Your task to perform on an android device: Go to Wikipedia Image 0: 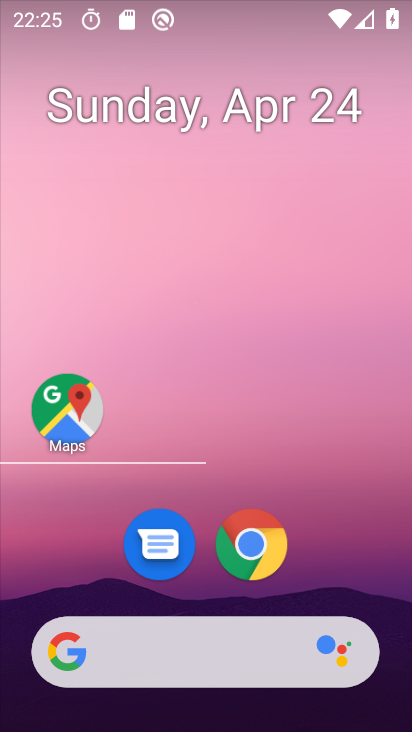
Step 0: click (353, 298)
Your task to perform on an android device: Go to Wikipedia Image 1: 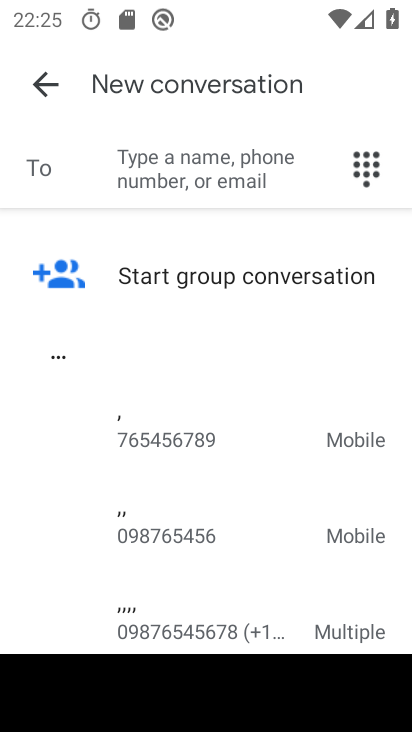
Step 1: press home button
Your task to perform on an android device: Go to Wikipedia Image 2: 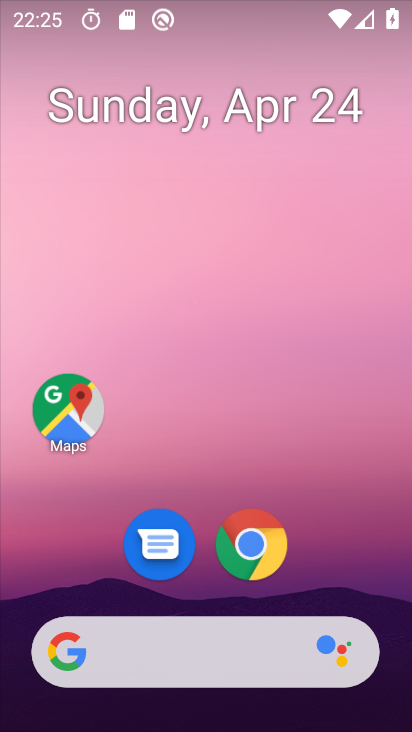
Step 2: drag from (345, 379) to (375, 192)
Your task to perform on an android device: Go to Wikipedia Image 3: 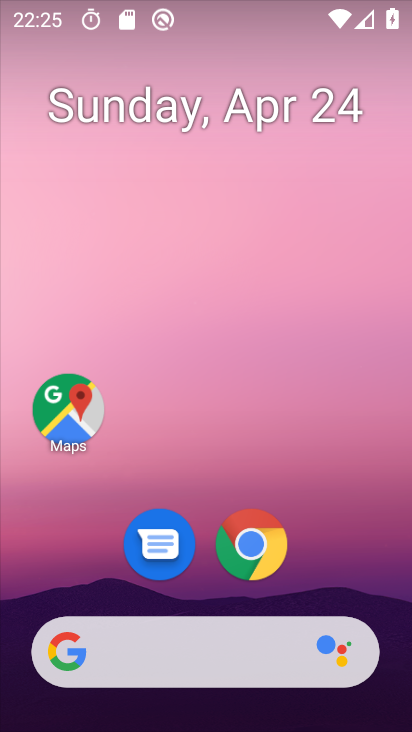
Step 3: click (253, 544)
Your task to perform on an android device: Go to Wikipedia Image 4: 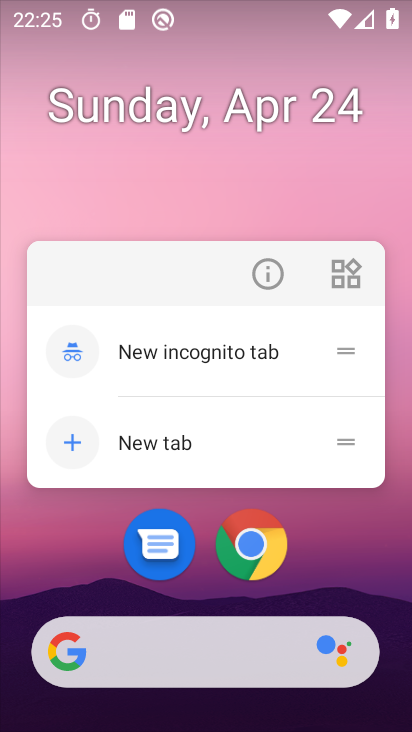
Step 4: click (250, 555)
Your task to perform on an android device: Go to Wikipedia Image 5: 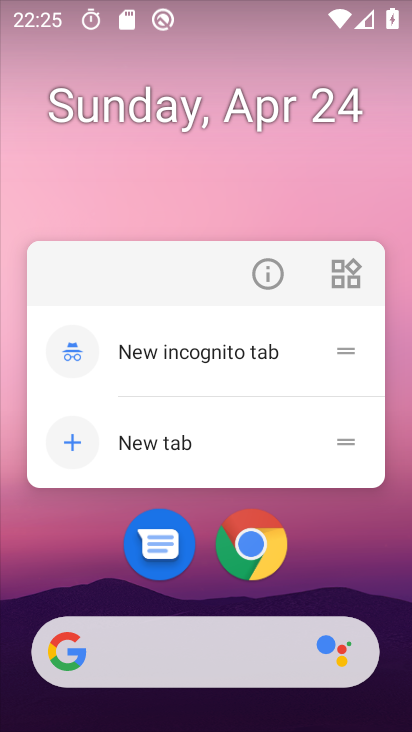
Step 5: click (250, 555)
Your task to perform on an android device: Go to Wikipedia Image 6: 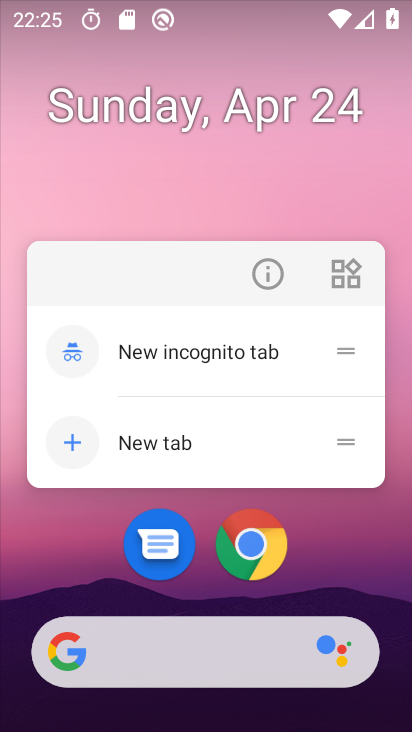
Step 6: click (251, 536)
Your task to perform on an android device: Go to Wikipedia Image 7: 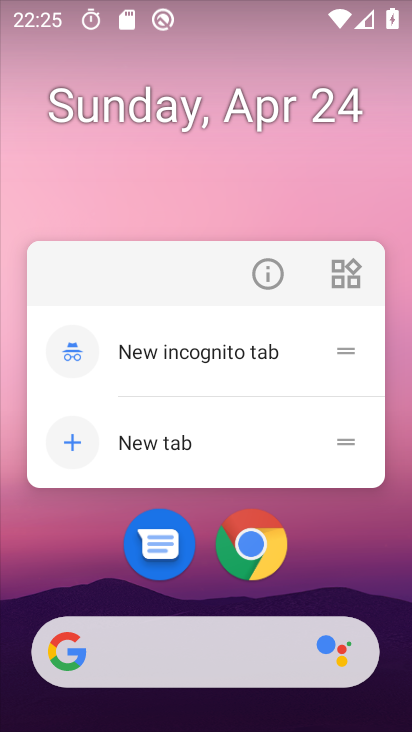
Step 7: click (329, 528)
Your task to perform on an android device: Go to Wikipedia Image 8: 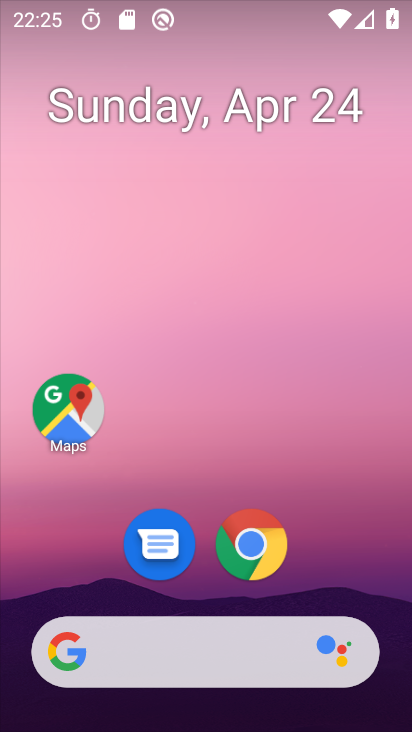
Step 8: drag from (213, 523) to (211, 235)
Your task to perform on an android device: Go to Wikipedia Image 9: 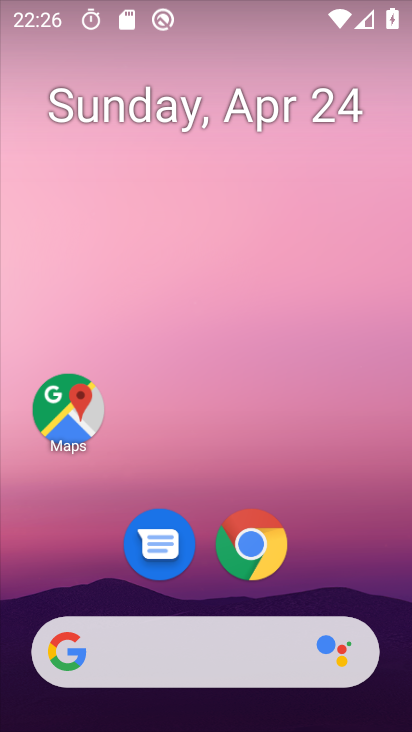
Step 9: drag from (213, 577) to (246, 175)
Your task to perform on an android device: Go to Wikipedia Image 10: 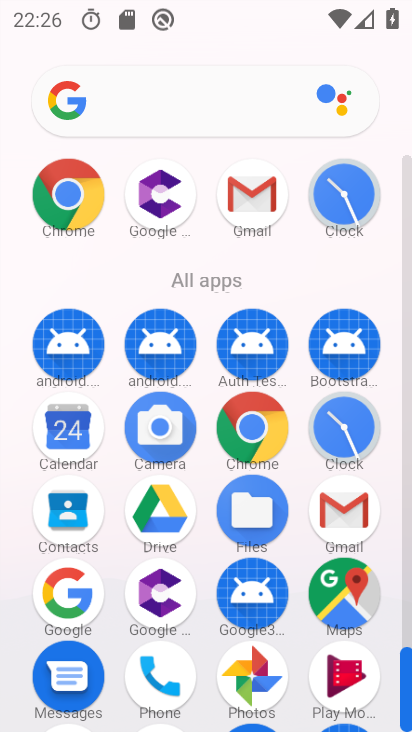
Step 10: click (264, 429)
Your task to perform on an android device: Go to Wikipedia Image 11: 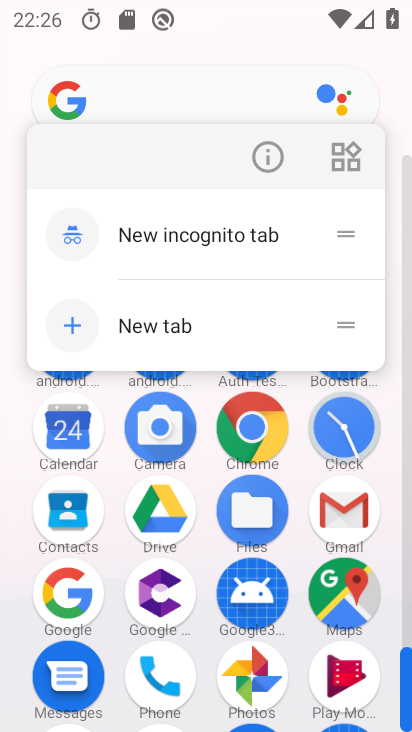
Step 11: click (248, 417)
Your task to perform on an android device: Go to Wikipedia Image 12: 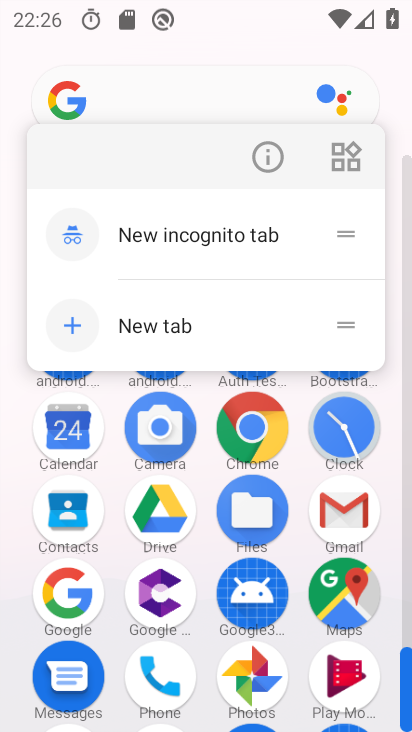
Step 12: click (248, 417)
Your task to perform on an android device: Go to Wikipedia Image 13: 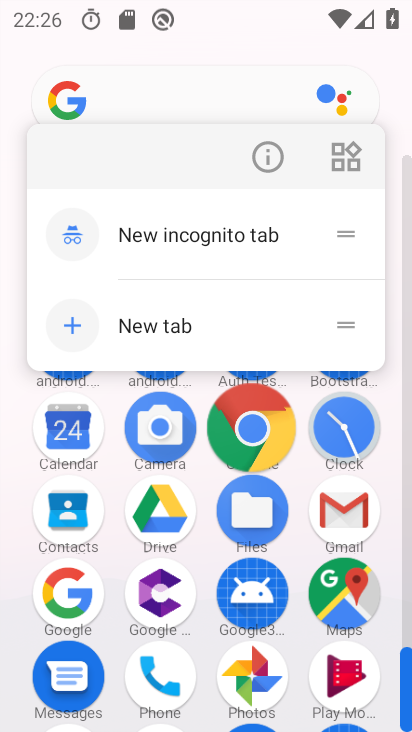
Step 13: click (253, 418)
Your task to perform on an android device: Go to Wikipedia Image 14: 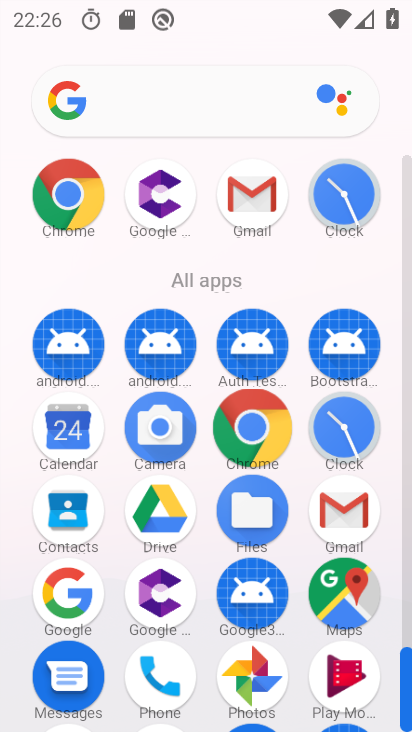
Step 14: click (253, 418)
Your task to perform on an android device: Go to Wikipedia Image 15: 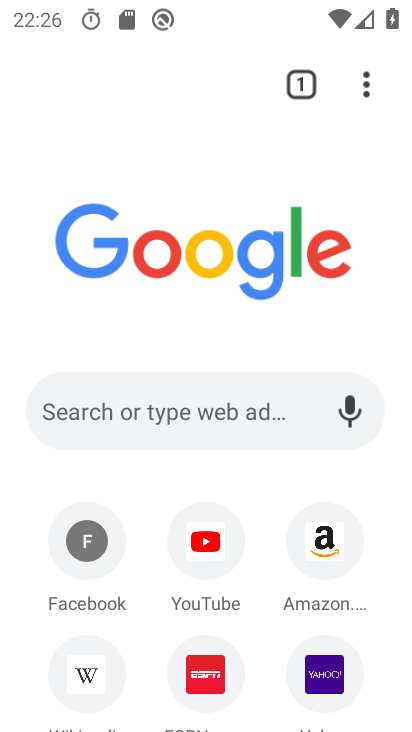
Step 15: click (263, 437)
Your task to perform on an android device: Go to Wikipedia Image 16: 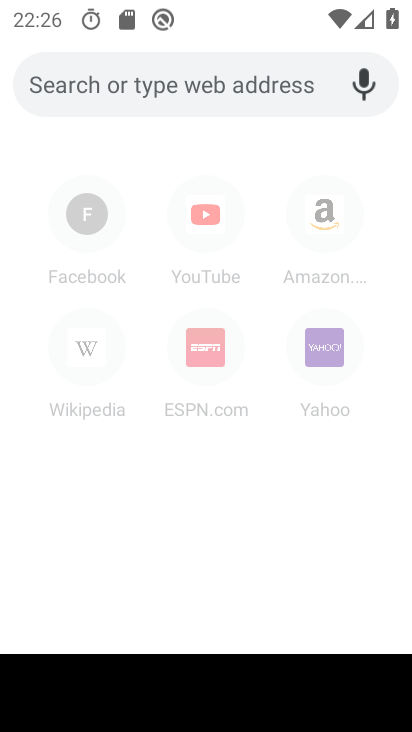
Step 16: click (88, 343)
Your task to perform on an android device: Go to Wikipedia Image 17: 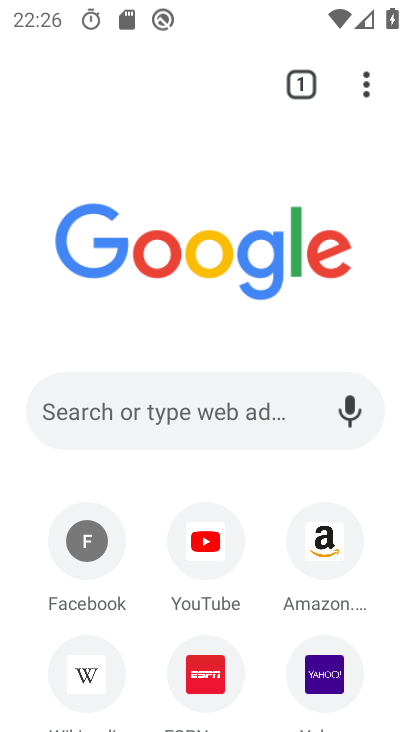
Step 17: click (88, 343)
Your task to perform on an android device: Go to Wikipedia Image 18: 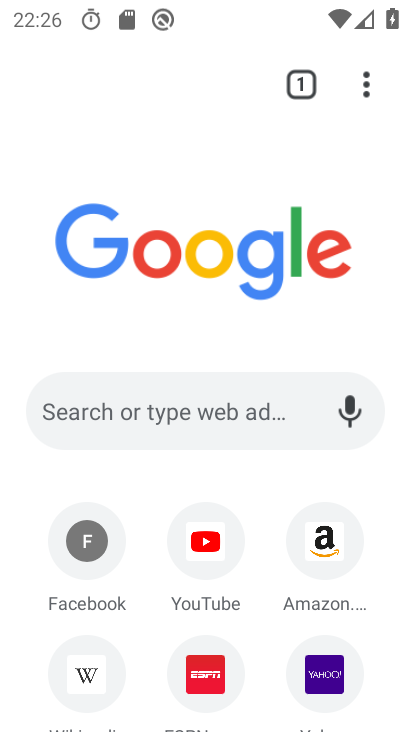
Step 18: click (81, 636)
Your task to perform on an android device: Go to Wikipedia Image 19: 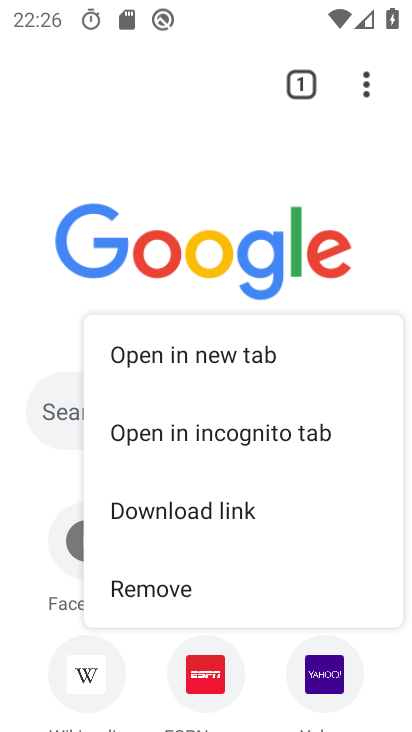
Step 19: click (91, 662)
Your task to perform on an android device: Go to Wikipedia Image 20: 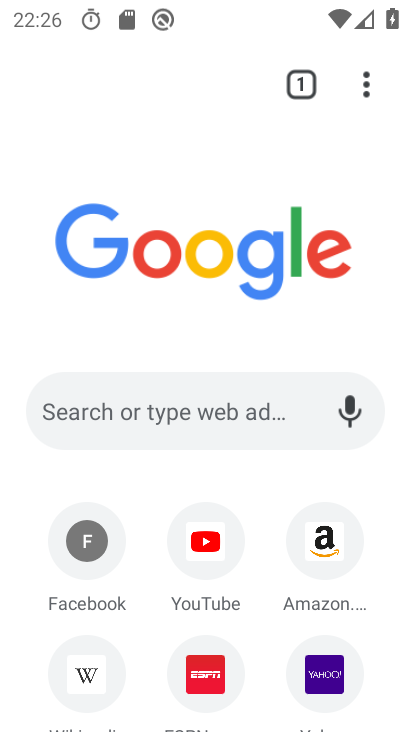
Step 20: click (83, 683)
Your task to perform on an android device: Go to Wikipedia Image 21: 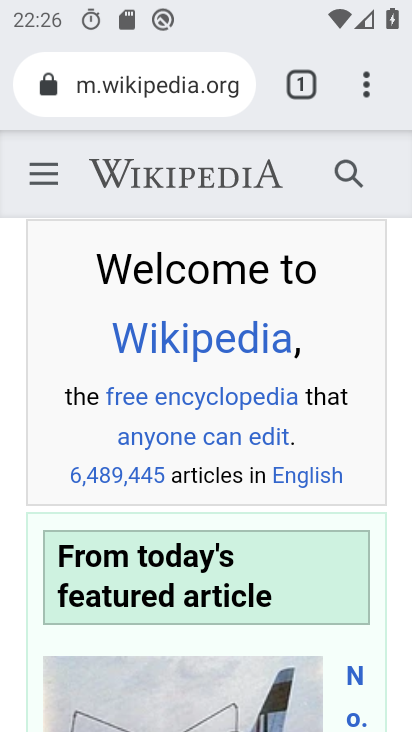
Step 21: task complete